Your task to perform on an android device: check out phone information Image 0: 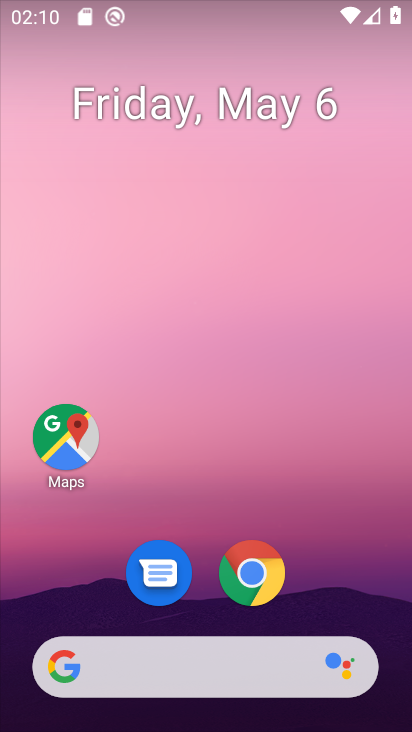
Step 0: drag from (322, 581) to (313, 264)
Your task to perform on an android device: check out phone information Image 1: 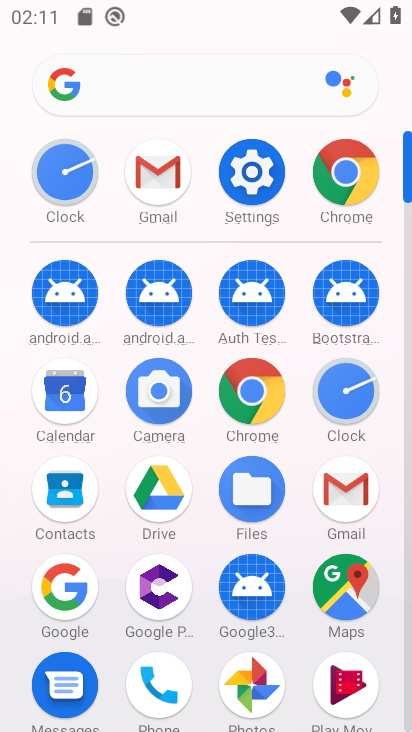
Step 1: click (239, 156)
Your task to perform on an android device: check out phone information Image 2: 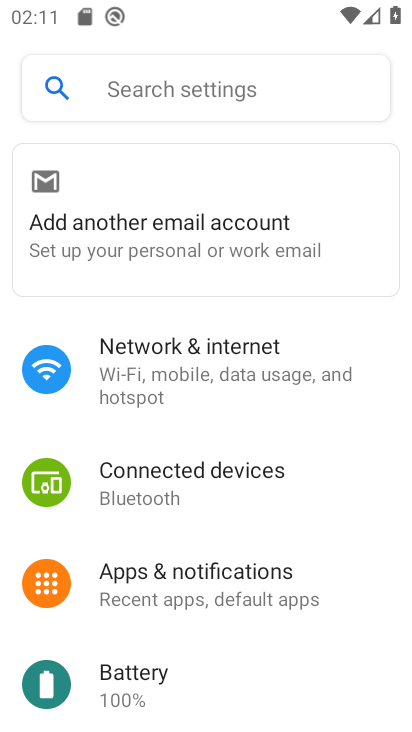
Step 2: drag from (284, 577) to (325, 203)
Your task to perform on an android device: check out phone information Image 3: 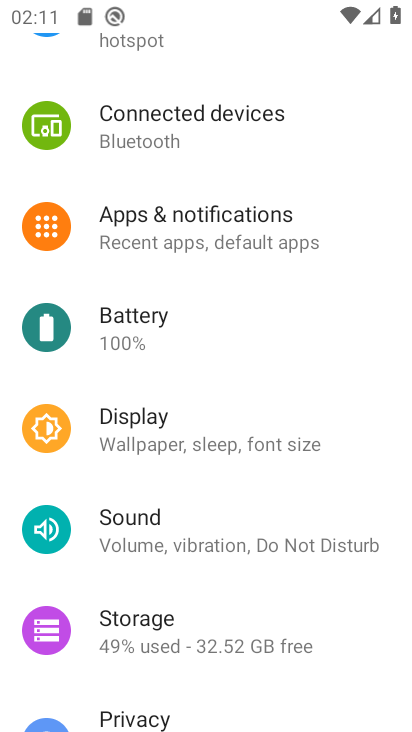
Step 3: drag from (254, 670) to (370, 205)
Your task to perform on an android device: check out phone information Image 4: 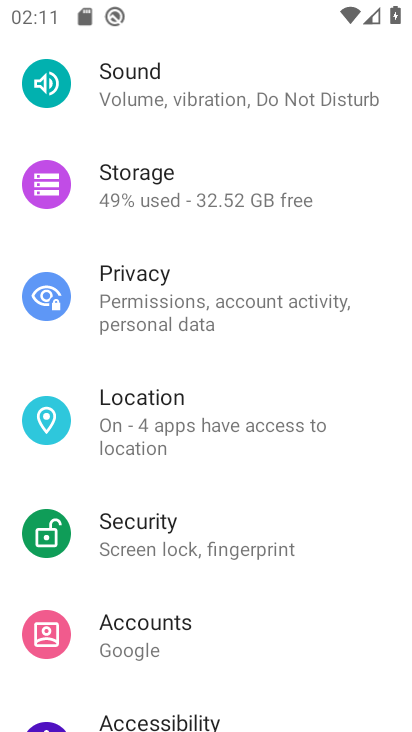
Step 4: drag from (251, 662) to (372, 283)
Your task to perform on an android device: check out phone information Image 5: 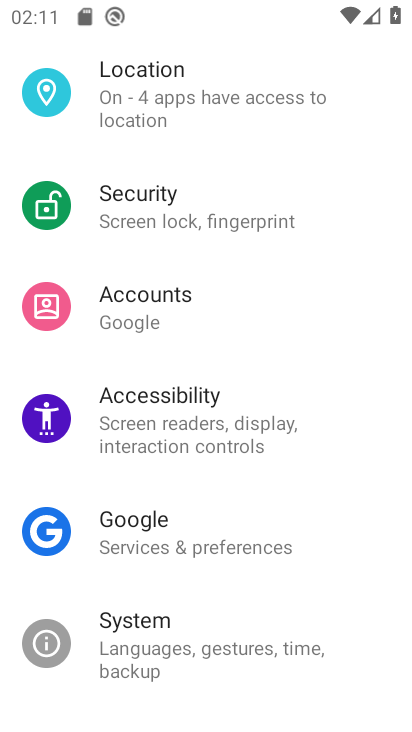
Step 5: drag from (281, 573) to (369, 313)
Your task to perform on an android device: check out phone information Image 6: 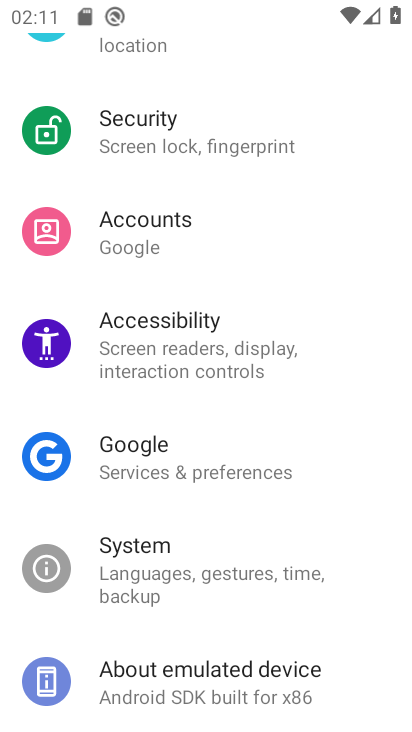
Step 6: click (243, 674)
Your task to perform on an android device: check out phone information Image 7: 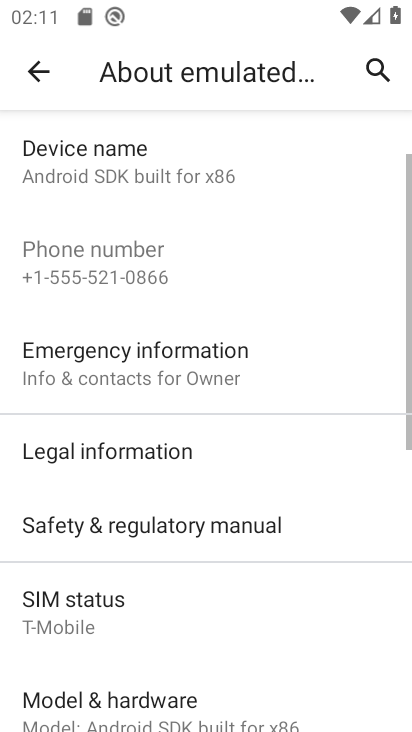
Step 7: task complete